Your task to perform on an android device: Go to Yahoo.com Image 0: 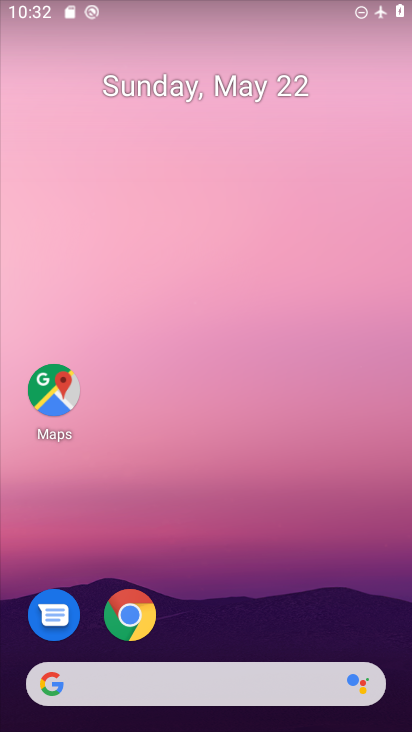
Step 0: click (129, 614)
Your task to perform on an android device: Go to Yahoo.com Image 1: 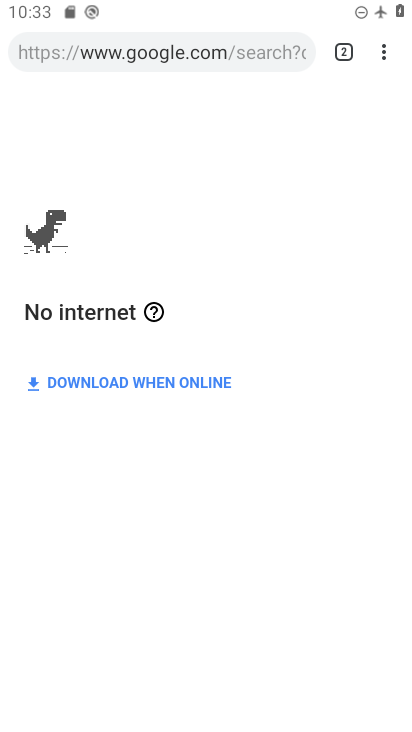
Step 1: click (225, 44)
Your task to perform on an android device: Go to Yahoo.com Image 2: 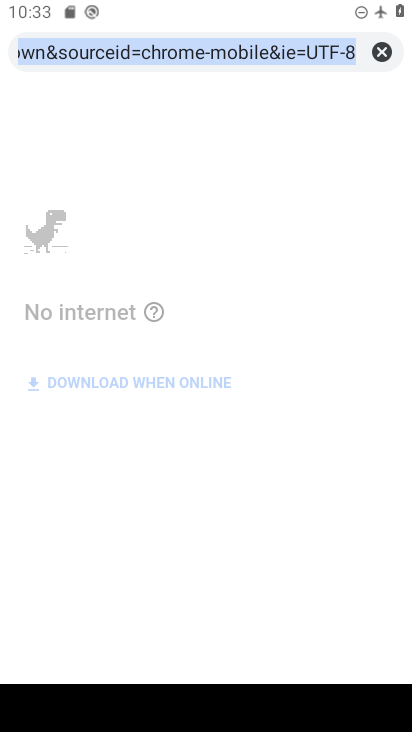
Step 2: type "yahoo.com"
Your task to perform on an android device: Go to Yahoo.com Image 3: 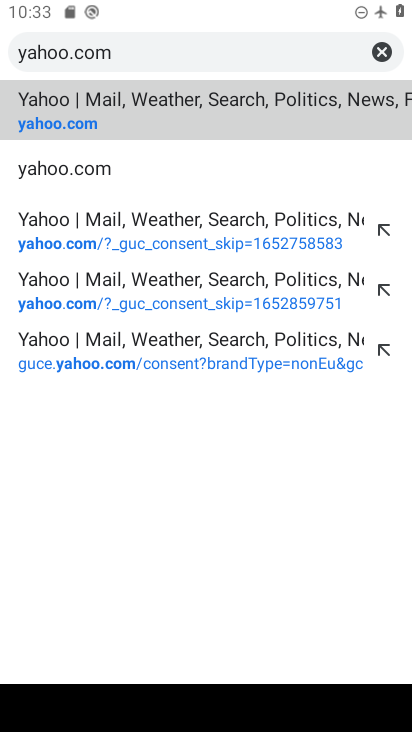
Step 3: click (28, 128)
Your task to perform on an android device: Go to Yahoo.com Image 4: 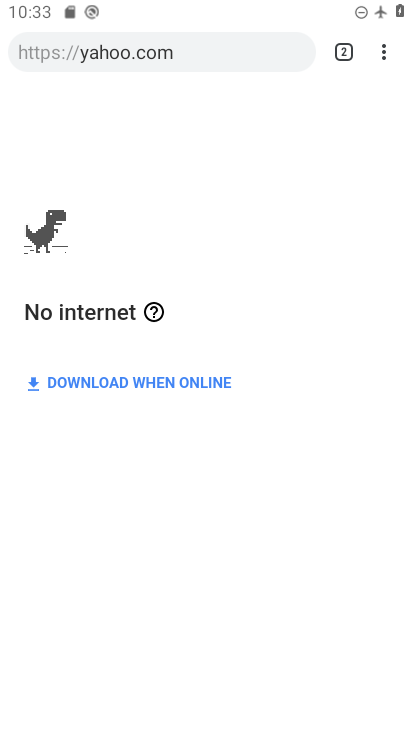
Step 4: task complete